Your task to perform on an android device: Check the weather Image 0: 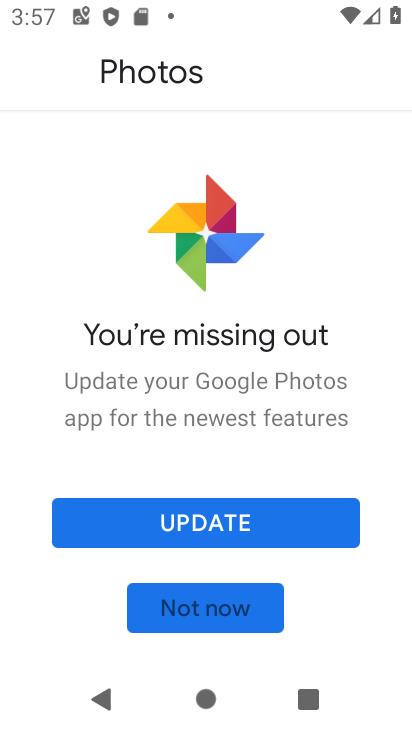
Step 0: press home button
Your task to perform on an android device: Check the weather Image 1: 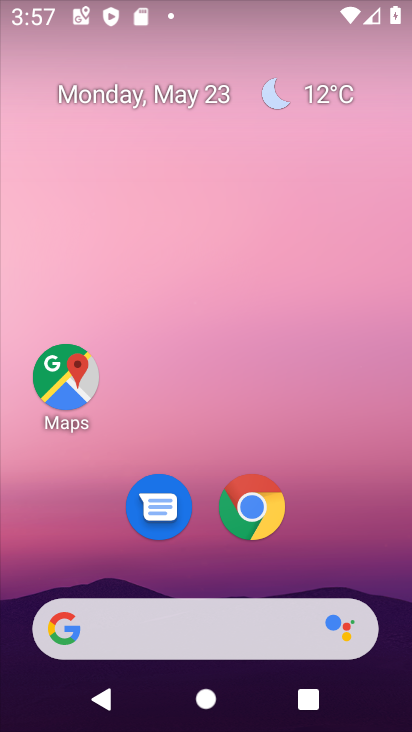
Step 1: click (334, 98)
Your task to perform on an android device: Check the weather Image 2: 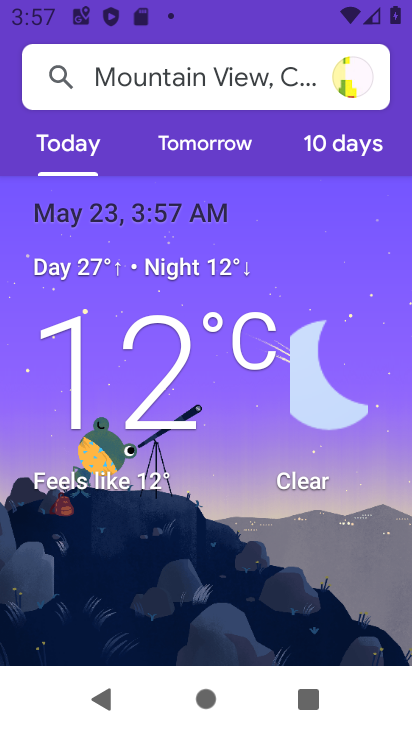
Step 2: task complete